Your task to perform on an android device: Is it going to rain this weekend? Image 0: 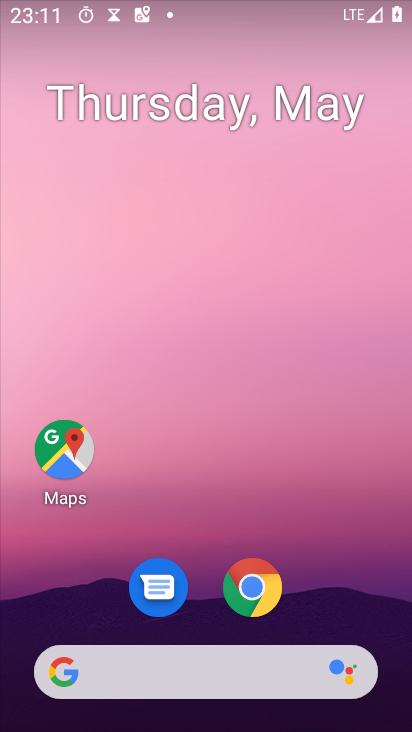
Step 0: click (137, 675)
Your task to perform on an android device: Is it going to rain this weekend? Image 1: 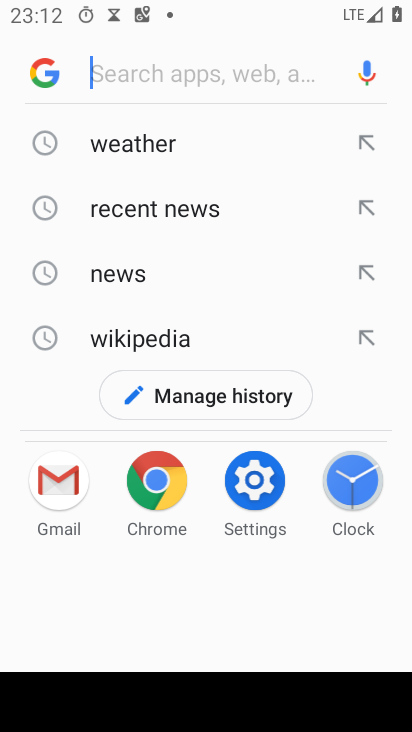
Step 1: click (142, 149)
Your task to perform on an android device: Is it going to rain this weekend? Image 2: 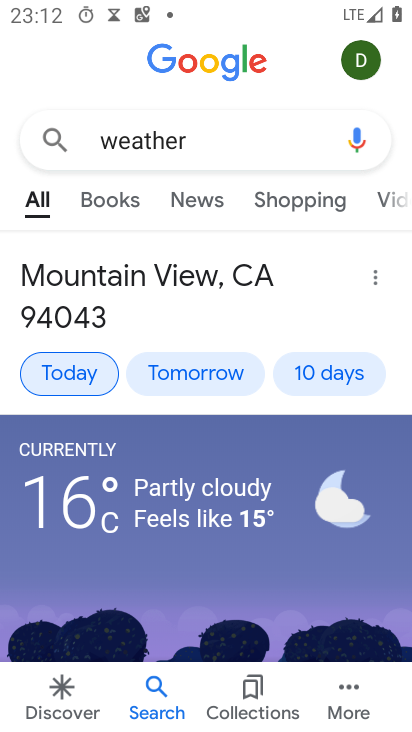
Step 2: click (305, 375)
Your task to perform on an android device: Is it going to rain this weekend? Image 3: 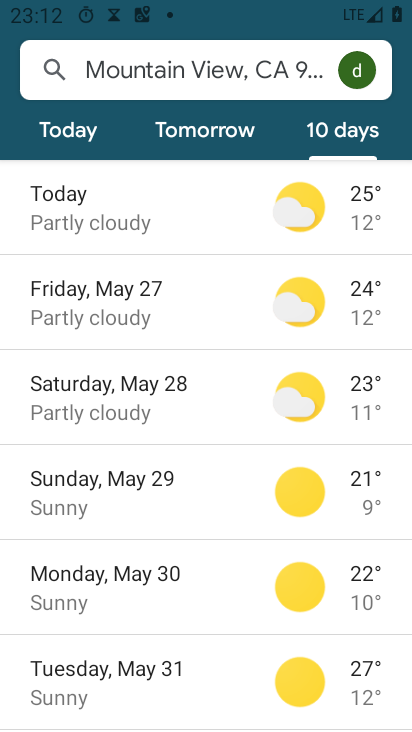
Step 3: task complete